Your task to perform on an android device: open app "Duolingo: language lessons" (install if not already installed) Image 0: 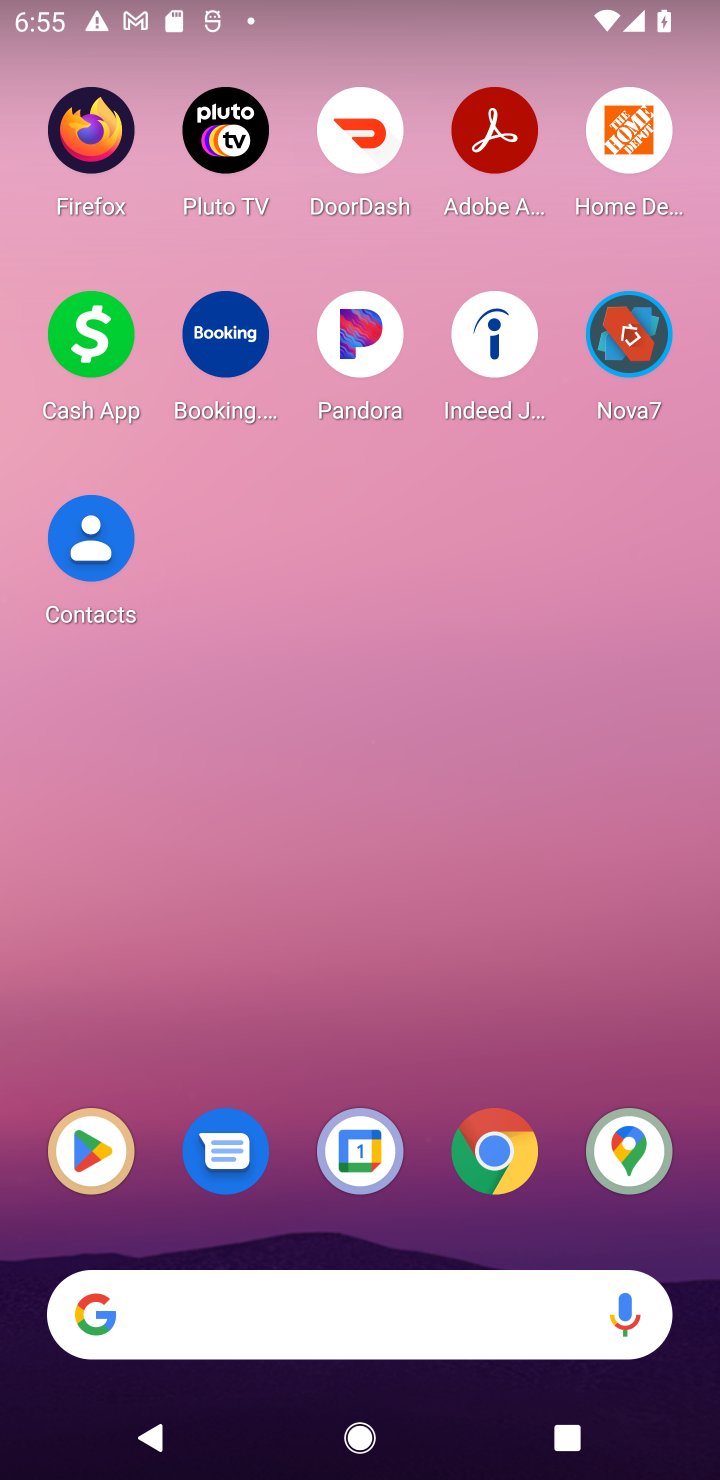
Step 0: drag from (351, 1329) to (226, 264)
Your task to perform on an android device: open app "Duolingo: language lessons" (install if not already installed) Image 1: 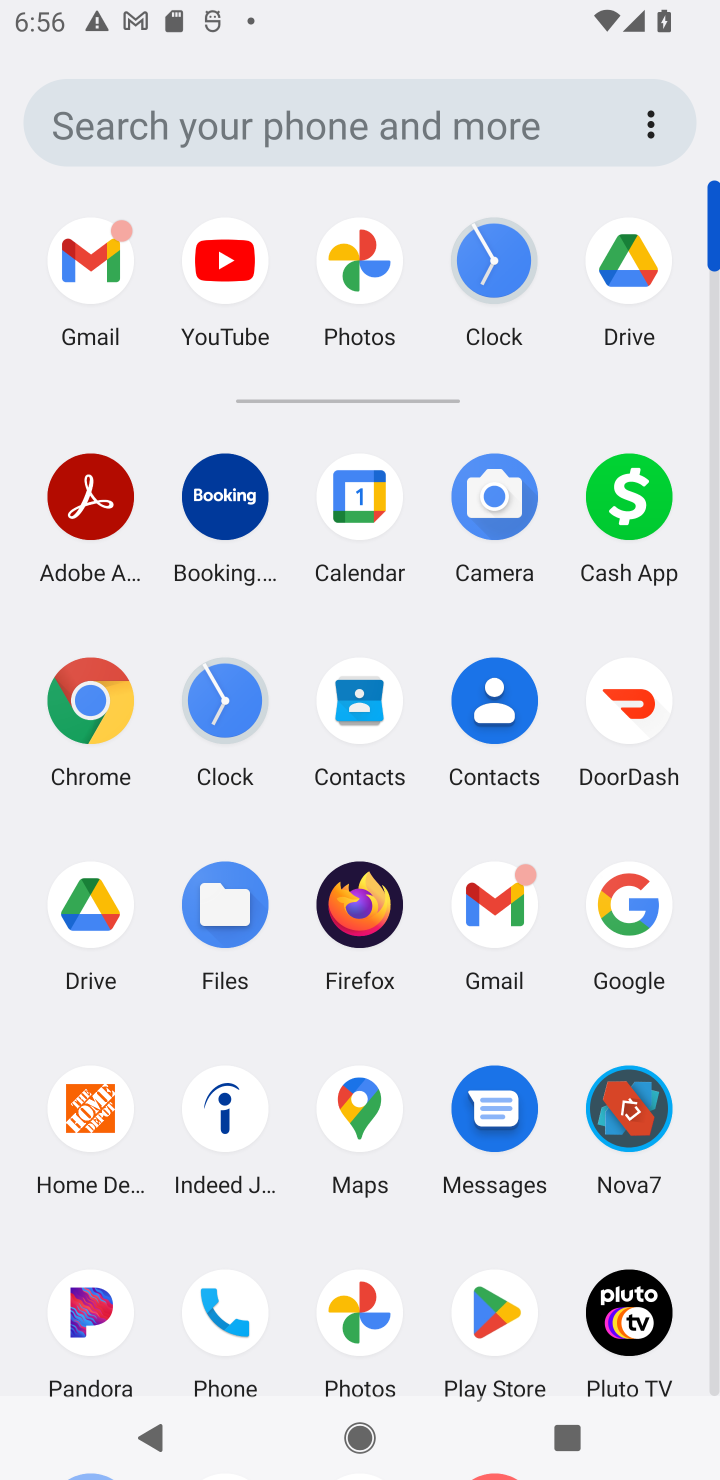
Step 1: click (497, 1301)
Your task to perform on an android device: open app "Duolingo: language lessons" (install if not already installed) Image 2: 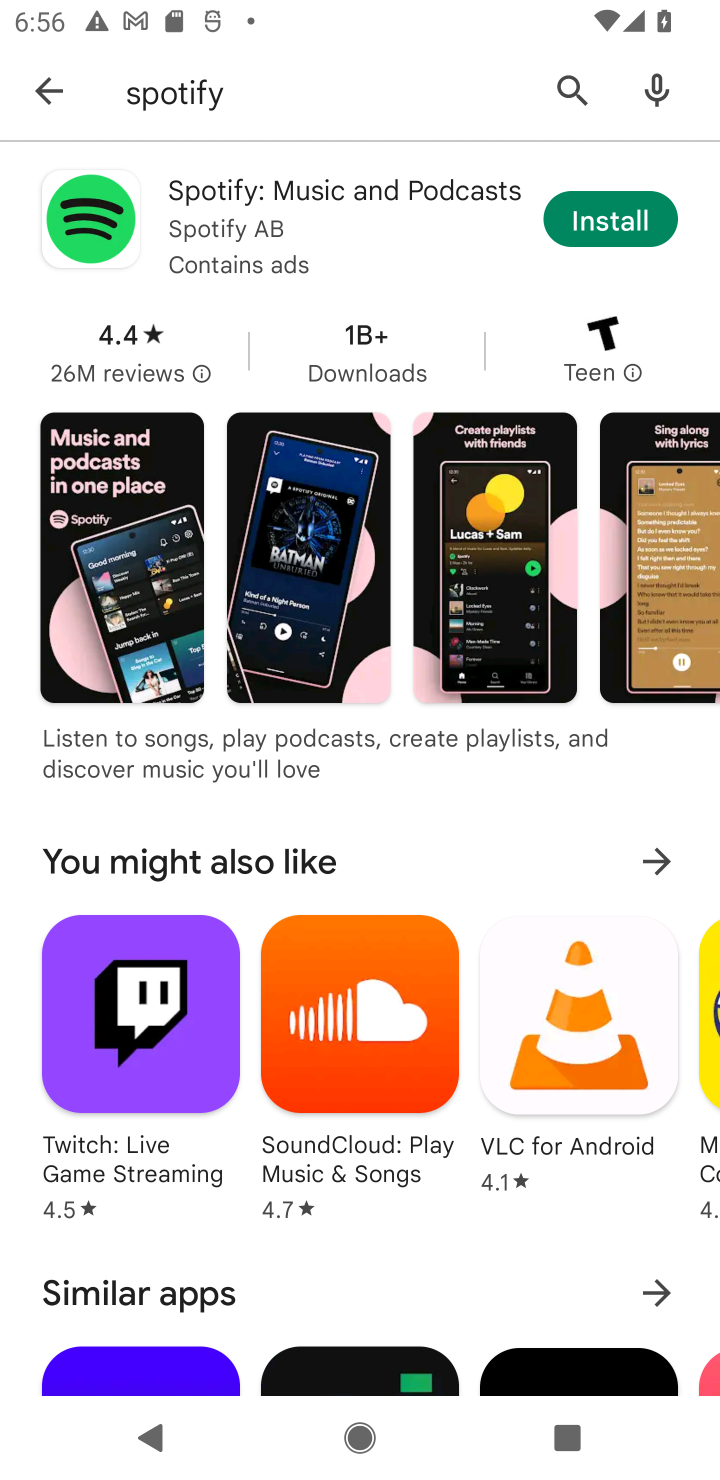
Step 2: click (574, 74)
Your task to perform on an android device: open app "Duolingo: language lessons" (install if not already installed) Image 3: 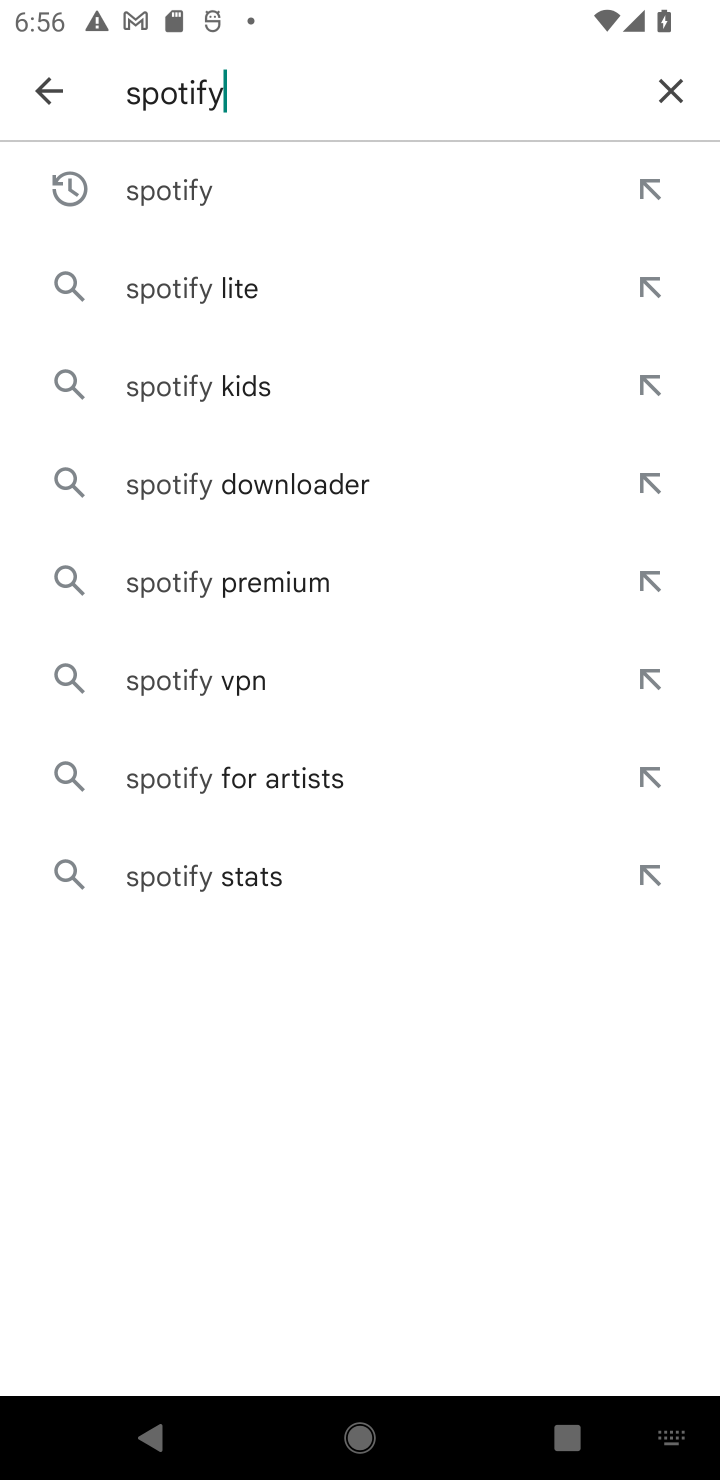
Step 3: click (675, 85)
Your task to perform on an android device: open app "Duolingo: language lessons" (install if not already installed) Image 4: 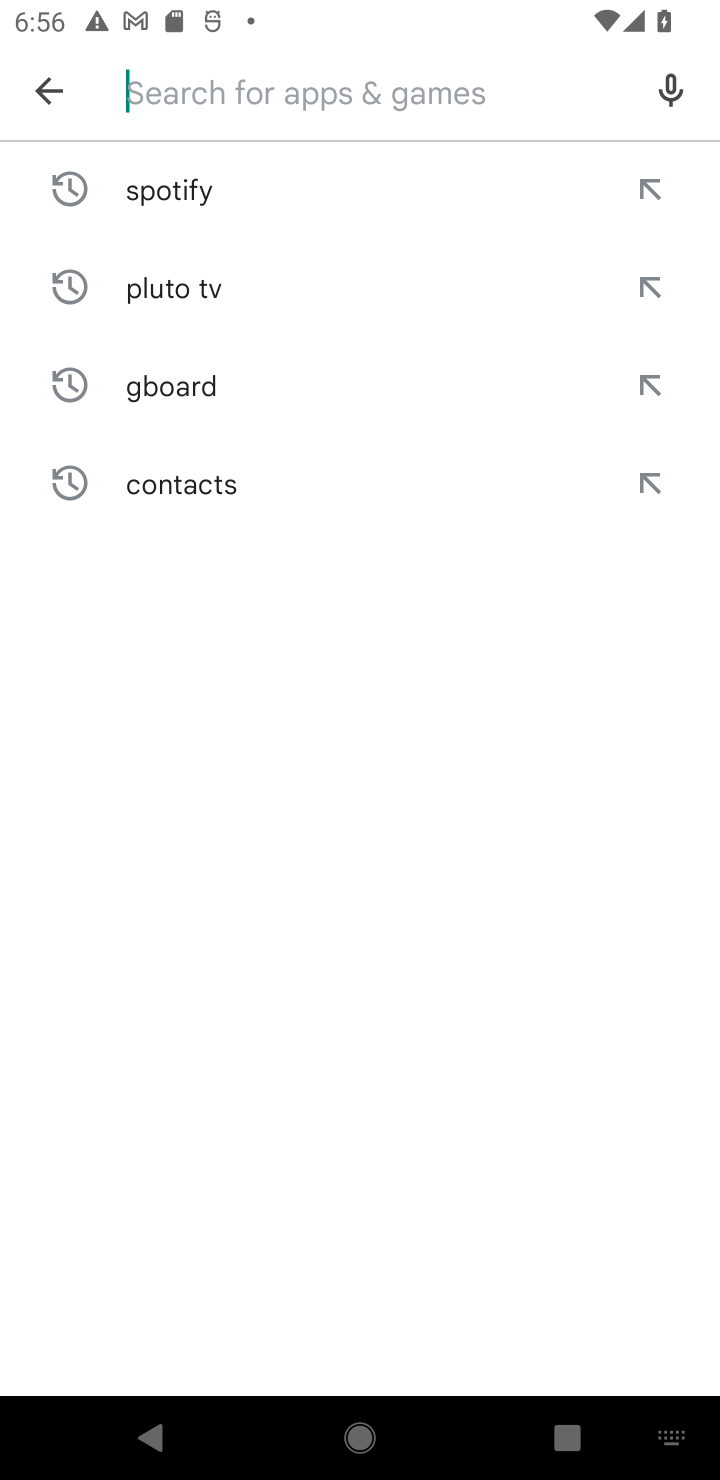
Step 4: type "duolinga: language lessons"
Your task to perform on an android device: open app "Duolingo: language lessons" (install if not already installed) Image 5: 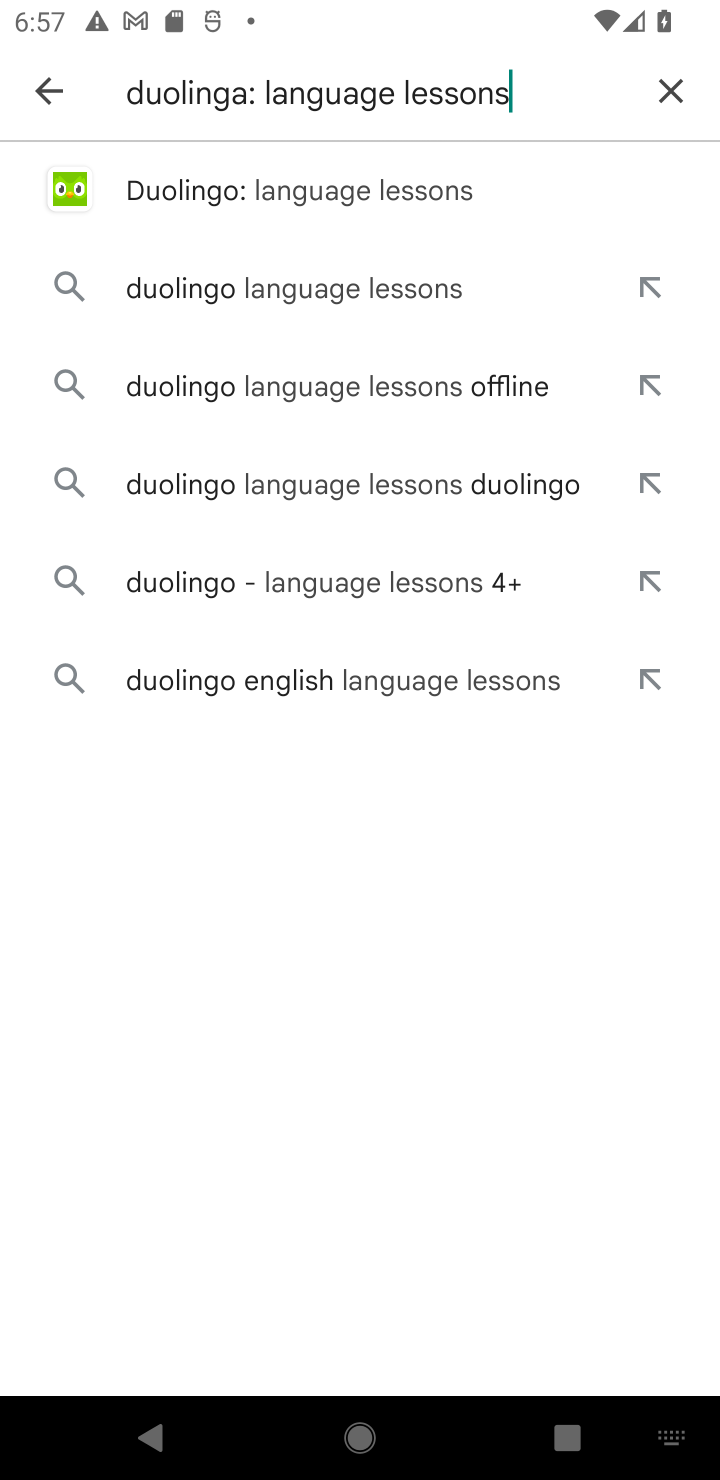
Step 5: click (397, 205)
Your task to perform on an android device: open app "Duolingo: language lessons" (install if not already installed) Image 6: 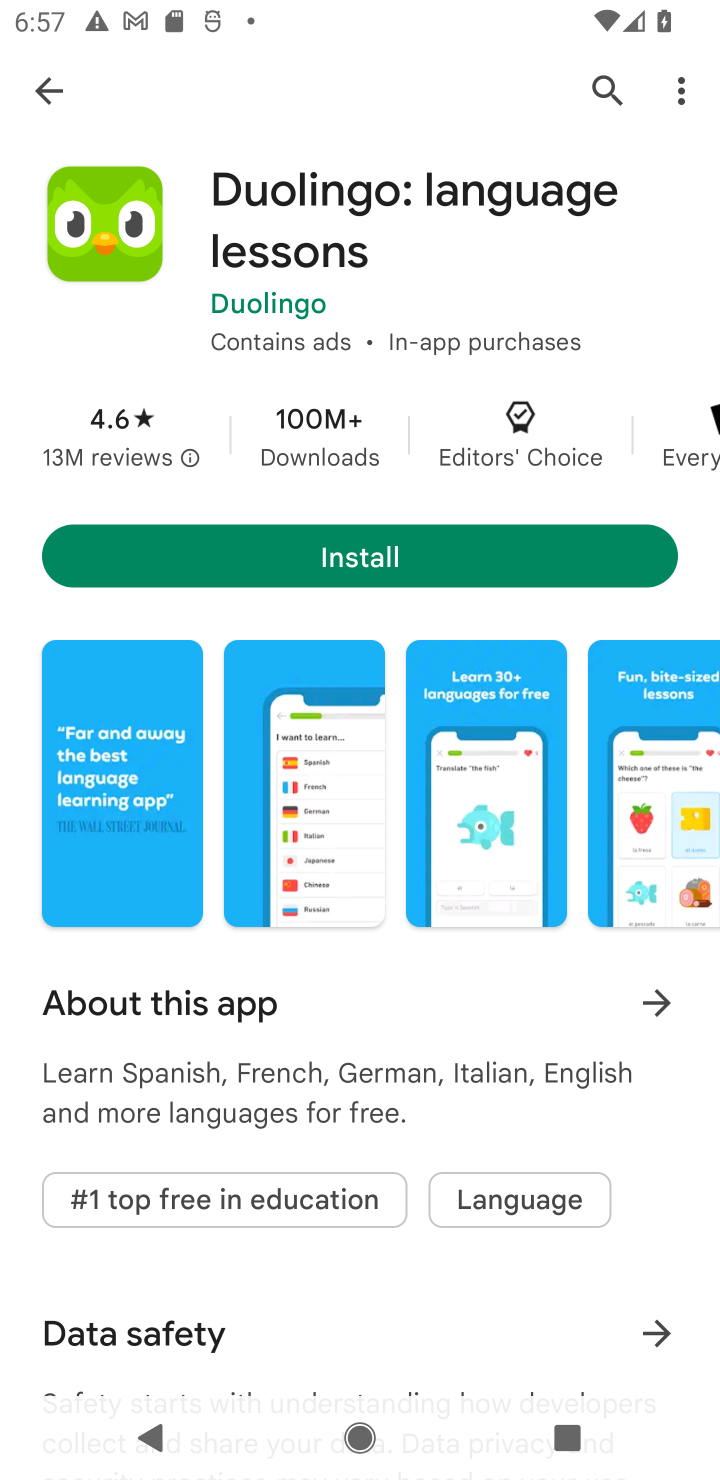
Step 6: click (460, 569)
Your task to perform on an android device: open app "Duolingo: language lessons" (install if not already installed) Image 7: 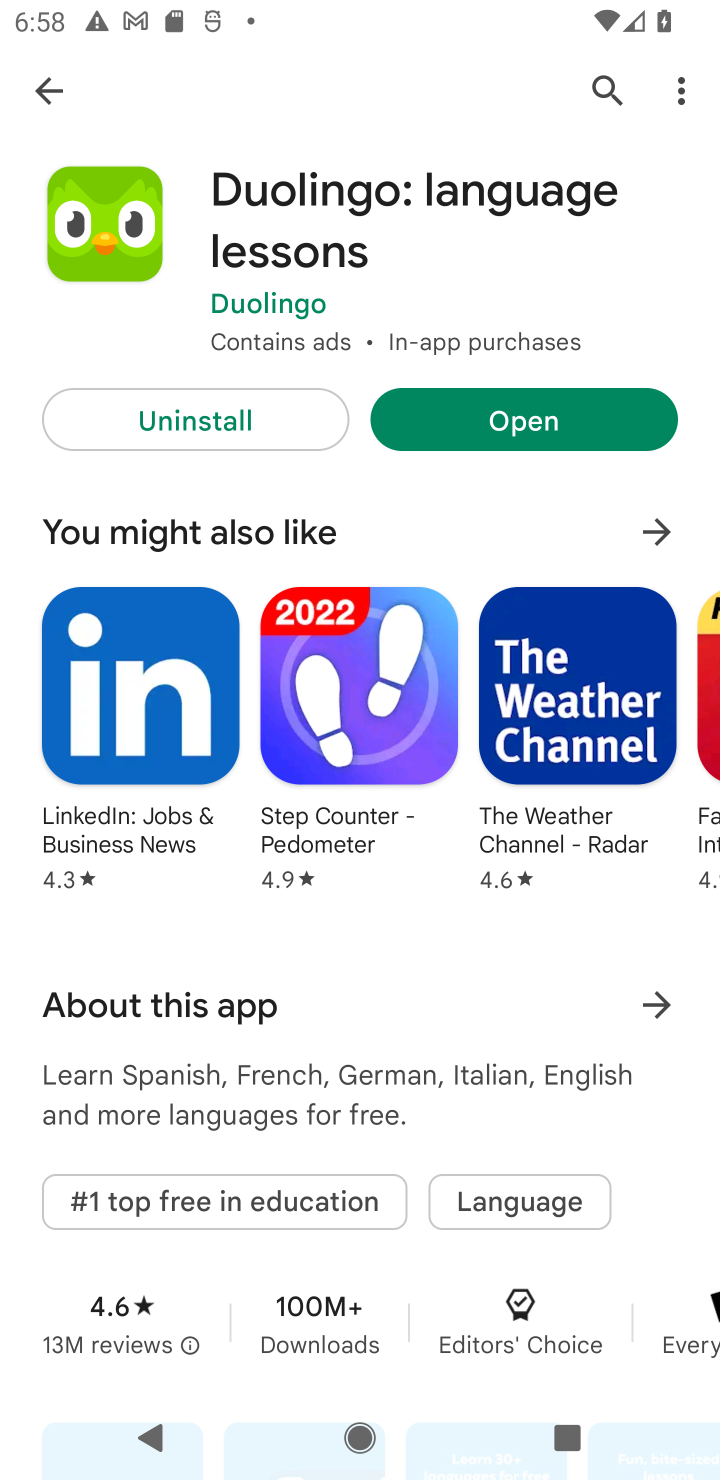
Step 7: click (492, 426)
Your task to perform on an android device: open app "Duolingo: language lessons" (install if not already installed) Image 8: 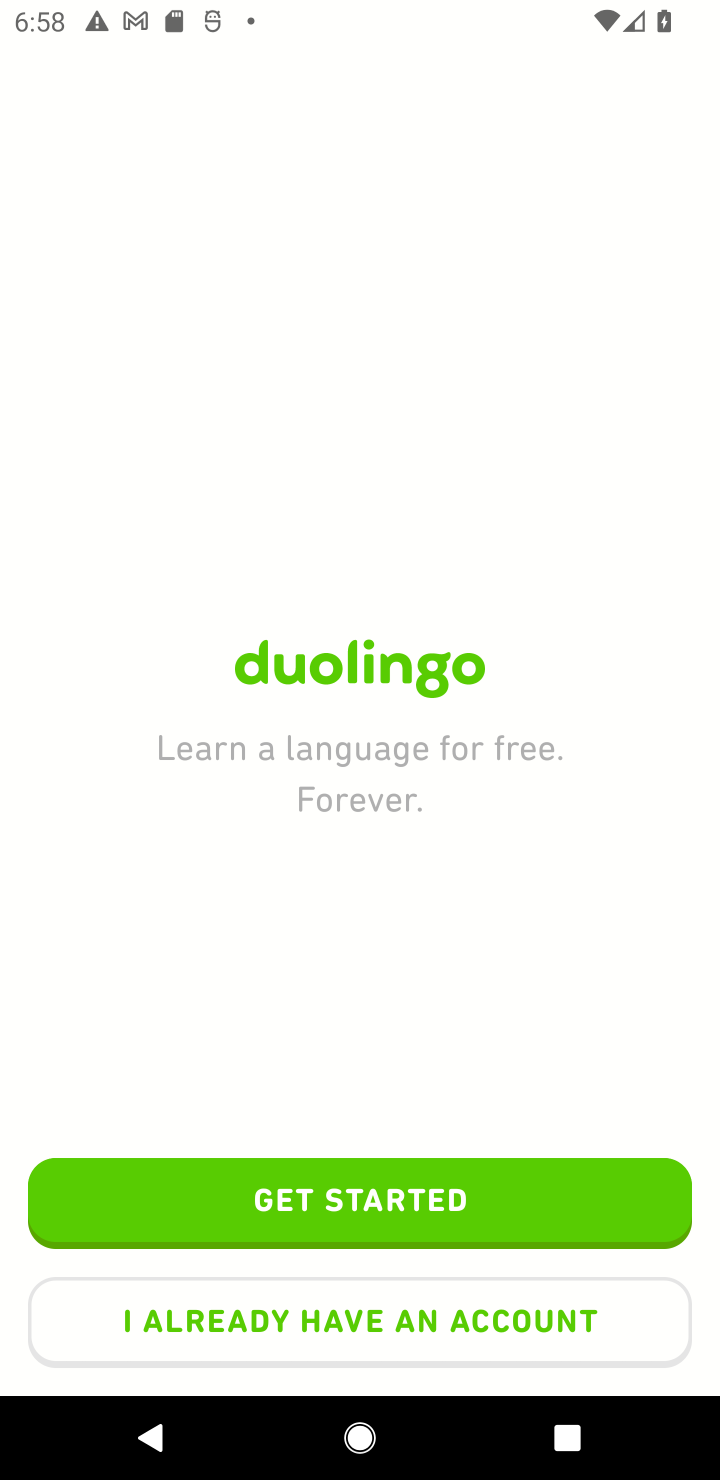
Step 8: task complete